Your task to perform on an android device: turn on translation in the chrome app Image 0: 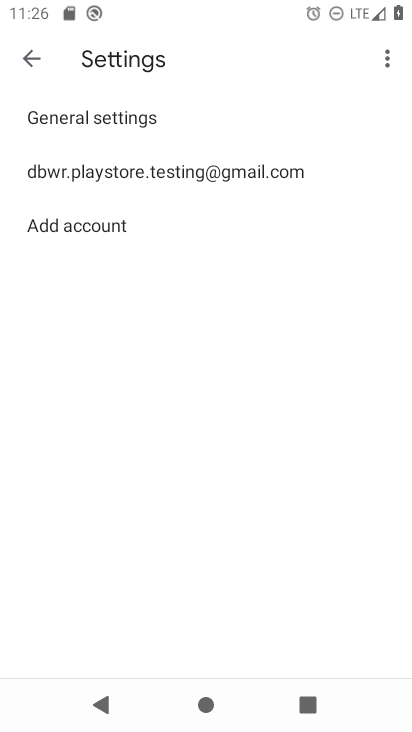
Step 0: press home button
Your task to perform on an android device: turn on translation in the chrome app Image 1: 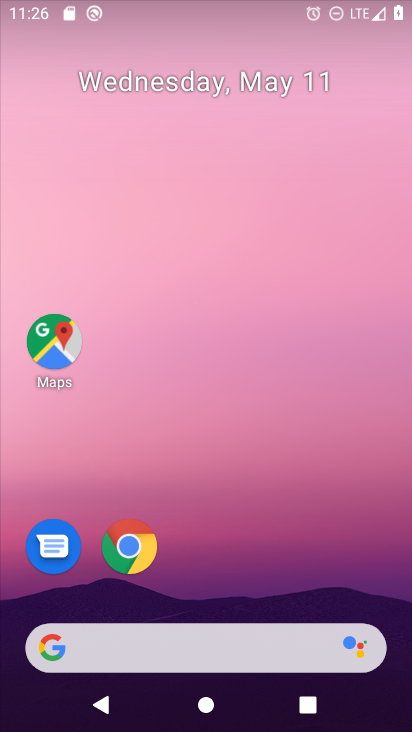
Step 1: drag from (390, 655) to (286, 78)
Your task to perform on an android device: turn on translation in the chrome app Image 2: 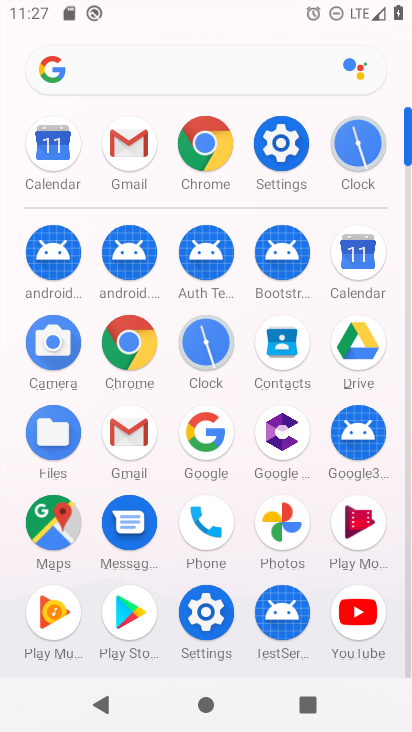
Step 2: click (177, 169)
Your task to perform on an android device: turn on translation in the chrome app Image 3: 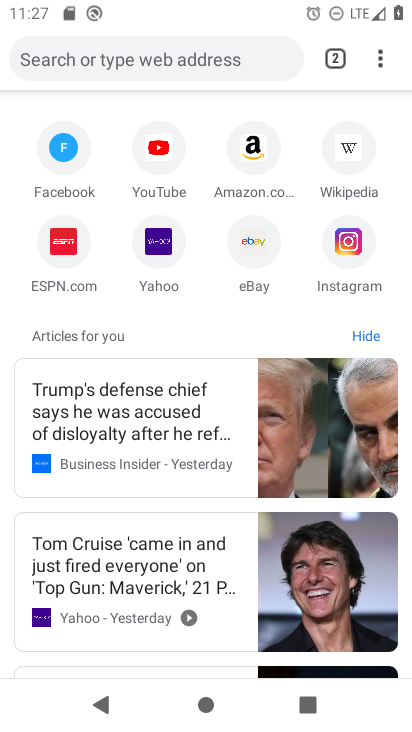
Step 3: click (385, 50)
Your task to perform on an android device: turn on translation in the chrome app Image 4: 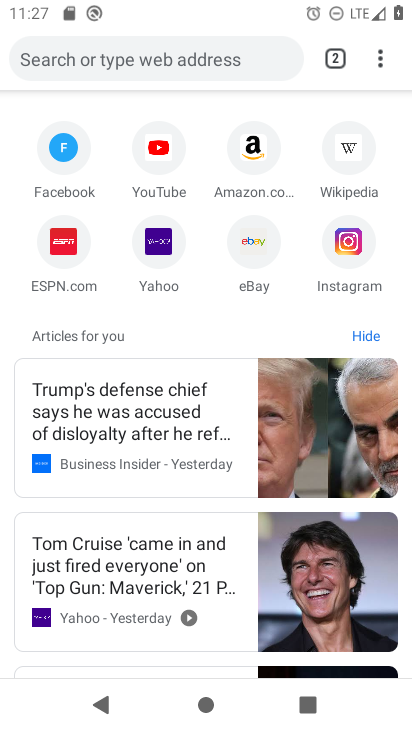
Step 4: click (378, 51)
Your task to perform on an android device: turn on translation in the chrome app Image 5: 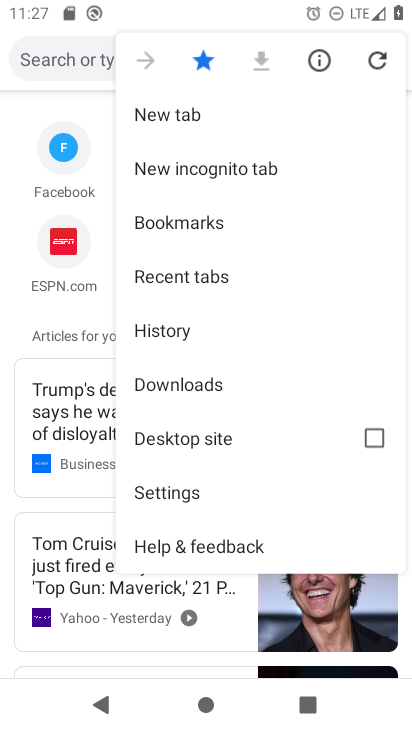
Step 5: click (205, 487)
Your task to perform on an android device: turn on translation in the chrome app Image 6: 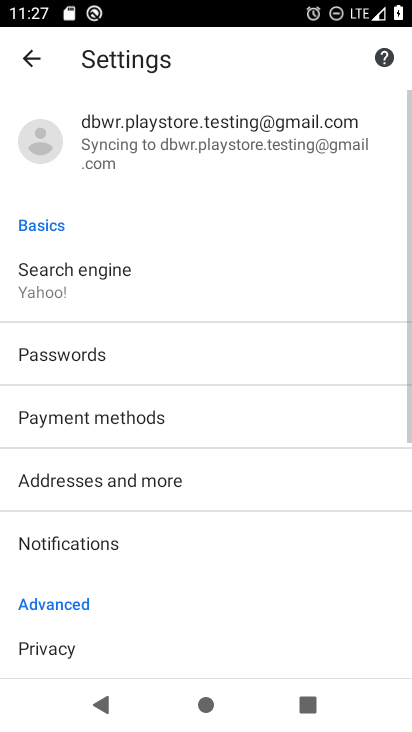
Step 6: drag from (183, 270) to (176, 231)
Your task to perform on an android device: turn on translation in the chrome app Image 7: 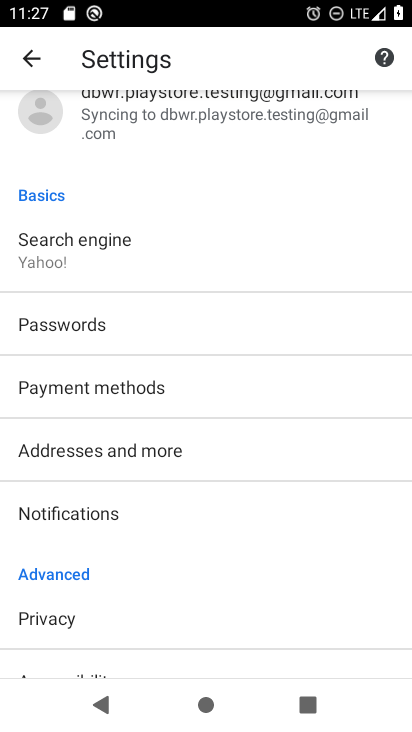
Step 7: drag from (181, 620) to (209, 304)
Your task to perform on an android device: turn on translation in the chrome app Image 8: 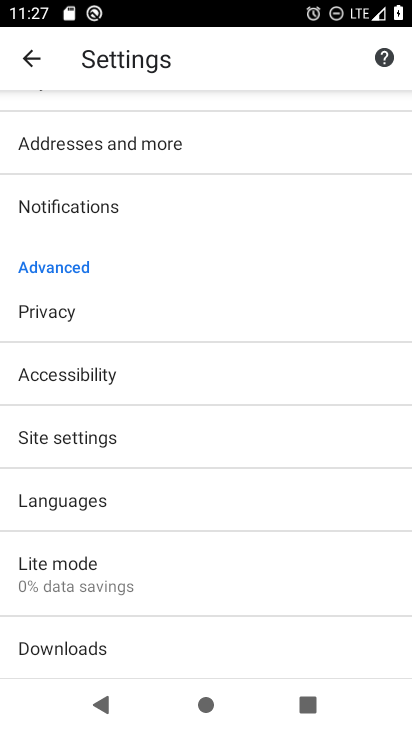
Step 8: click (163, 509)
Your task to perform on an android device: turn on translation in the chrome app Image 9: 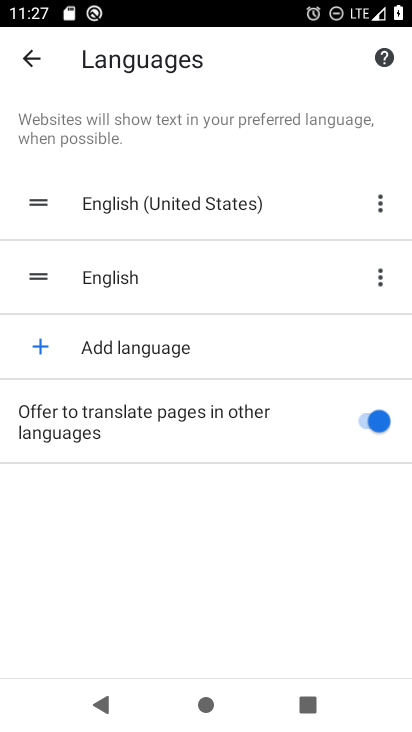
Step 9: task complete